Your task to perform on an android device: see sites visited before in the chrome app Image 0: 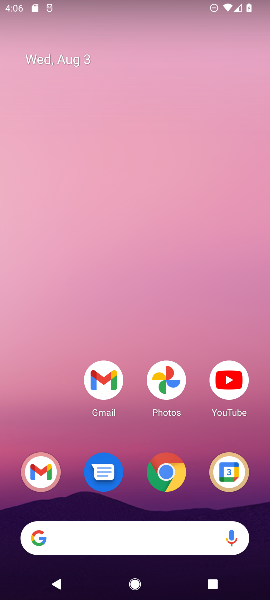
Step 0: drag from (192, 482) to (86, 5)
Your task to perform on an android device: see sites visited before in the chrome app Image 1: 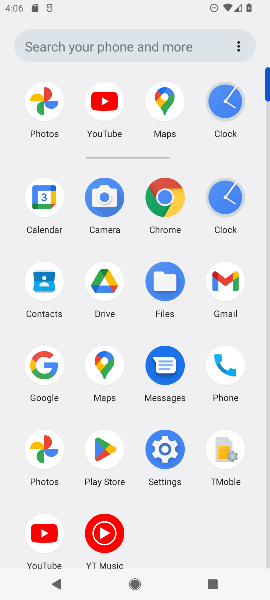
Step 1: click (169, 195)
Your task to perform on an android device: see sites visited before in the chrome app Image 2: 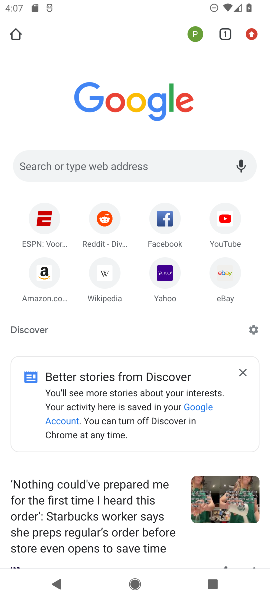
Step 2: task complete